Your task to perform on an android device: Open location settings Image 0: 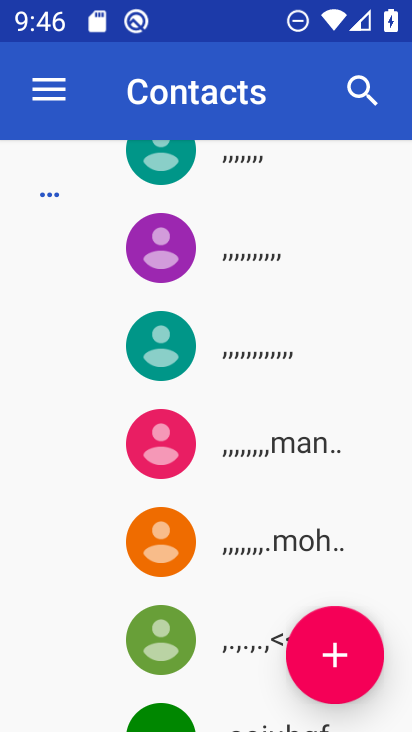
Step 0: press home button
Your task to perform on an android device: Open location settings Image 1: 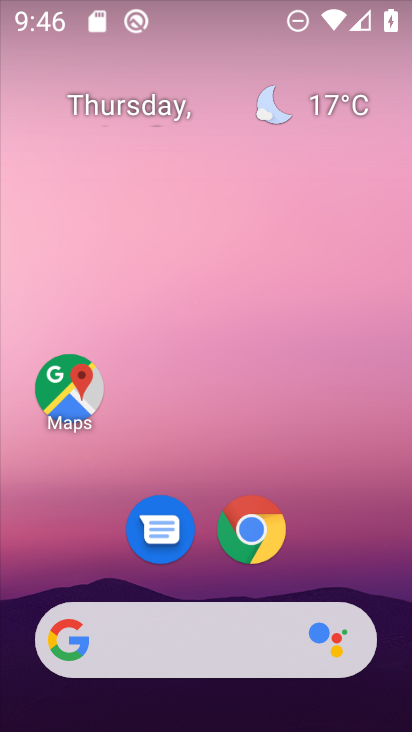
Step 1: drag from (401, 707) to (383, 138)
Your task to perform on an android device: Open location settings Image 2: 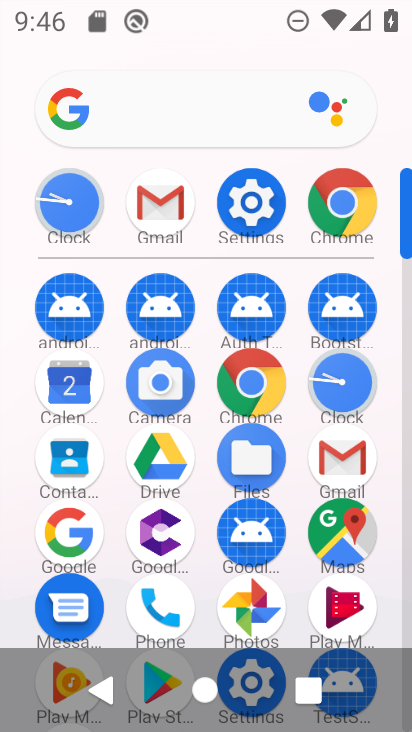
Step 2: click (246, 206)
Your task to perform on an android device: Open location settings Image 3: 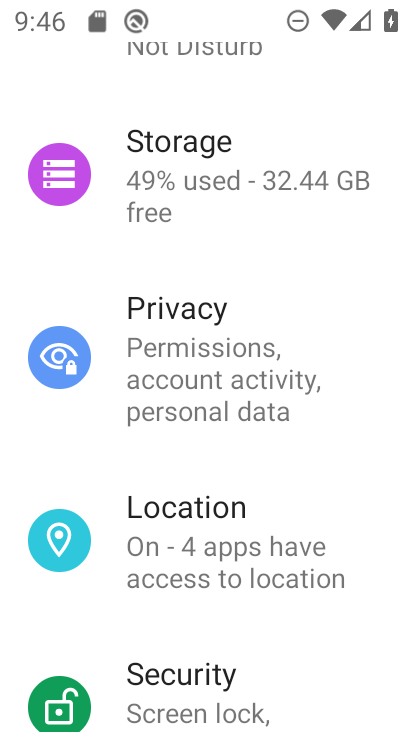
Step 3: click (185, 514)
Your task to perform on an android device: Open location settings Image 4: 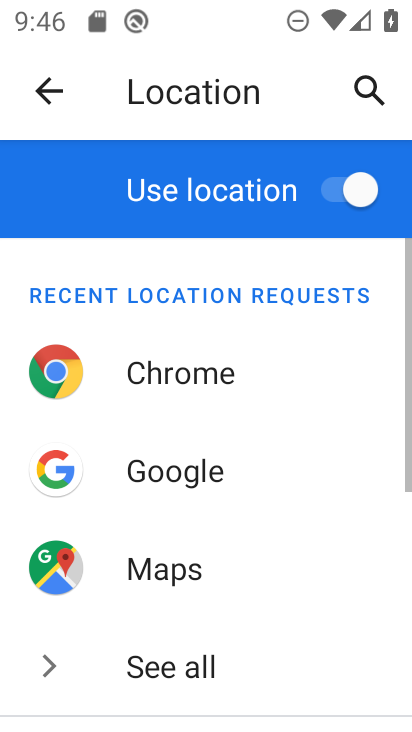
Step 4: task complete